Your task to perform on an android device: turn notification dots on Image 0: 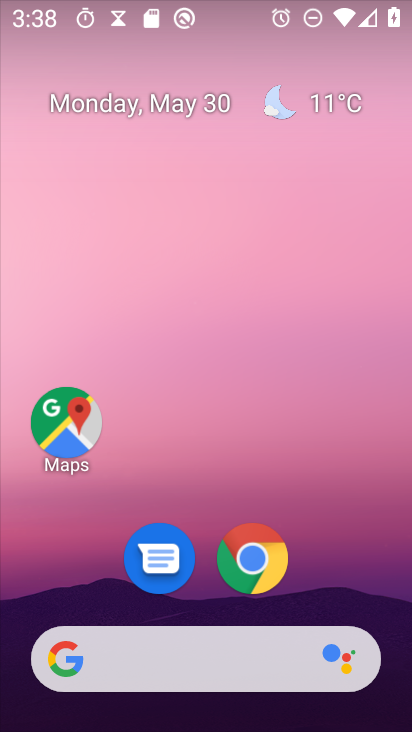
Step 0: drag from (227, 602) to (279, 74)
Your task to perform on an android device: turn notification dots on Image 1: 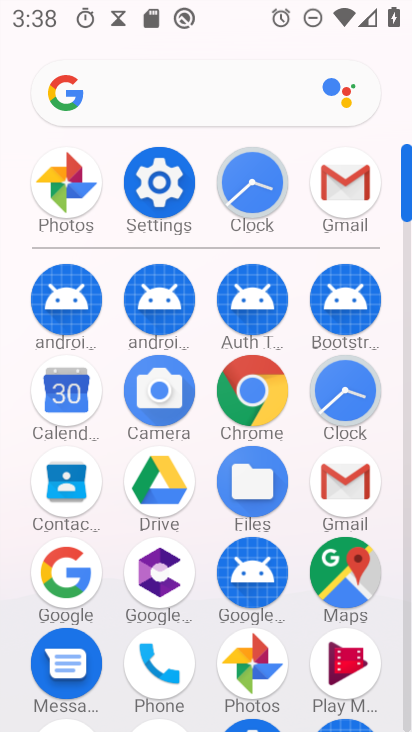
Step 1: click (152, 189)
Your task to perform on an android device: turn notification dots on Image 2: 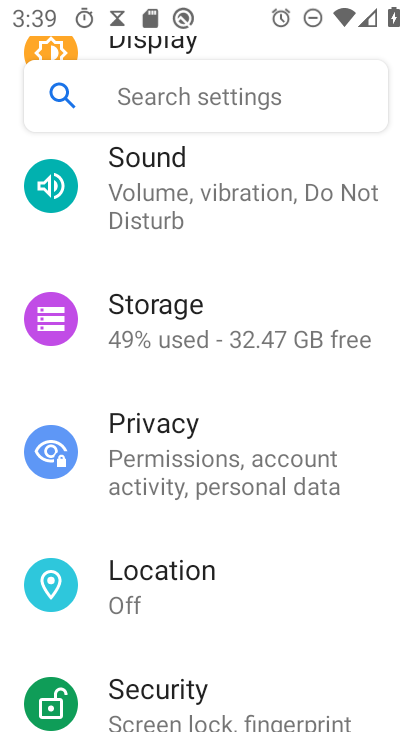
Step 2: drag from (190, 132) to (188, 724)
Your task to perform on an android device: turn notification dots on Image 3: 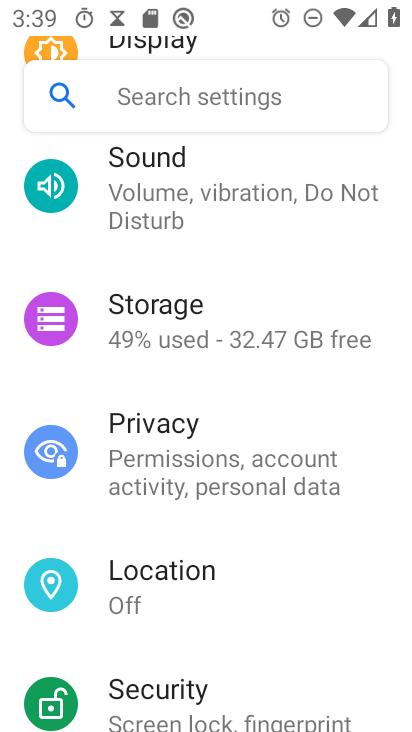
Step 3: drag from (192, 271) to (151, 721)
Your task to perform on an android device: turn notification dots on Image 4: 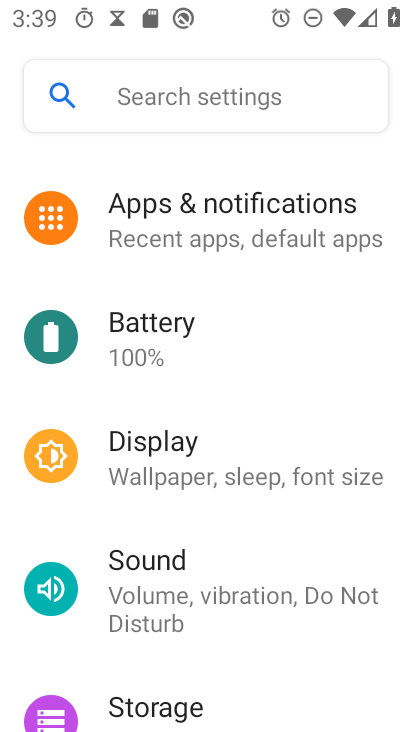
Step 4: click (193, 247)
Your task to perform on an android device: turn notification dots on Image 5: 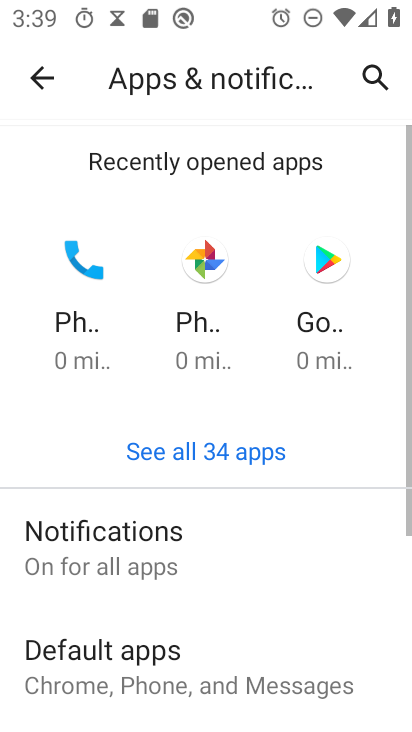
Step 5: click (148, 547)
Your task to perform on an android device: turn notification dots on Image 6: 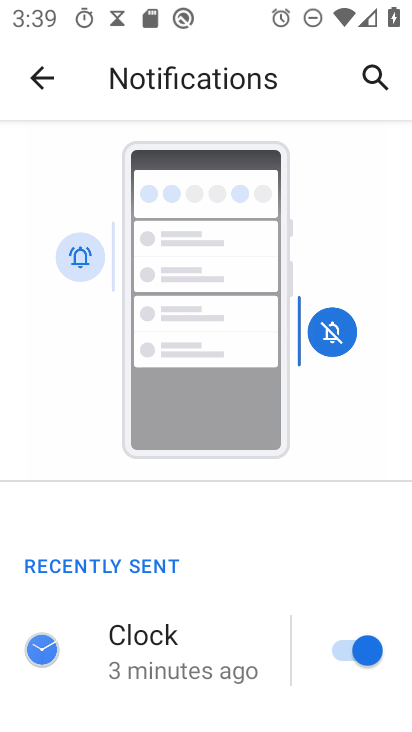
Step 6: drag from (163, 664) to (247, 54)
Your task to perform on an android device: turn notification dots on Image 7: 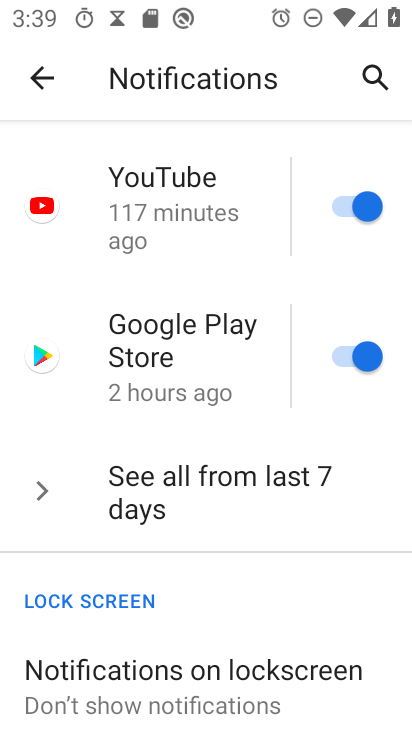
Step 7: drag from (155, 688) to (236, 149)
Your task to perform on an android device: turn notification dots on Image 8: 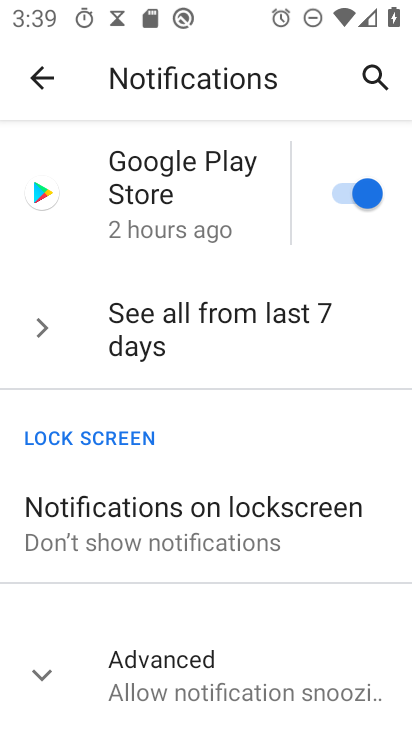
Step 8: click (147, 679)
Your task to perform on an android device: turn notification dots on Image 9: 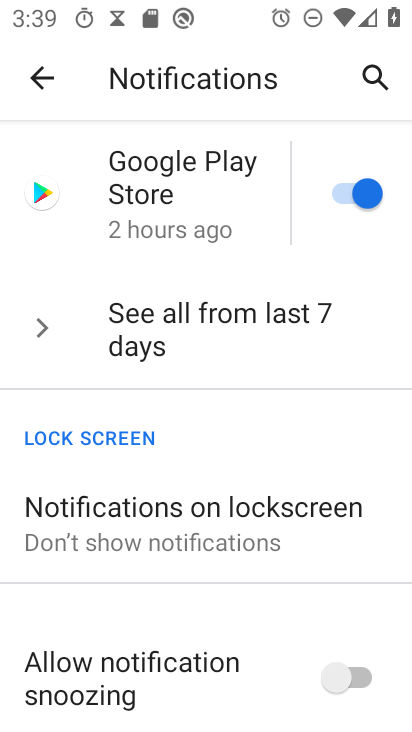
Step 9: drag from (191, 686) to (263, 118)
Your task to perform on an android device: turn notification dots on Image 10: 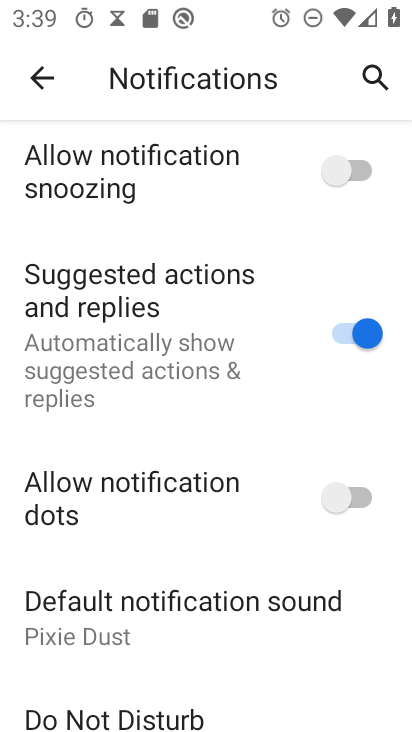
Step 10: click (350, 501)
Your task to perform on an android device: turn notification dots on Image 11: 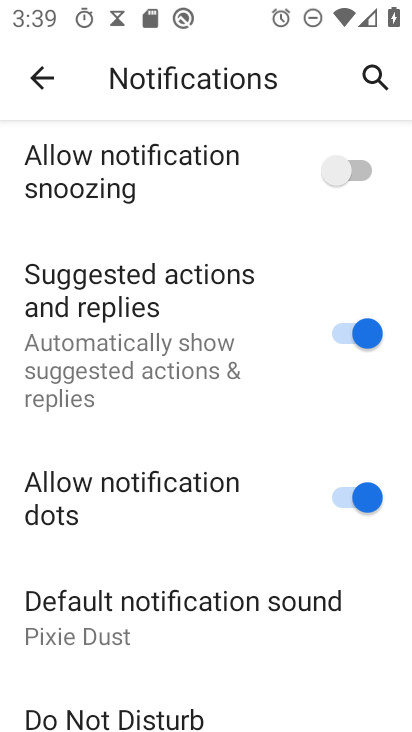
Step 11: task complete